Your task to perform on an android device: Open Chrome and go to settings Image 0: 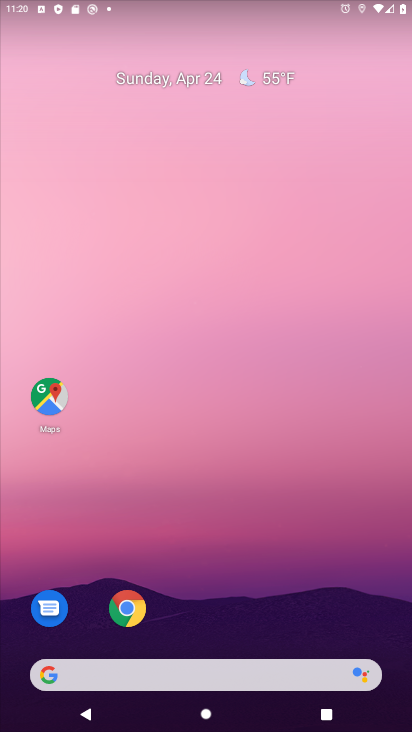
Step 0: click (124, 609)
Your task to perform on an android device: Open Chrome and go to settings Image 1: 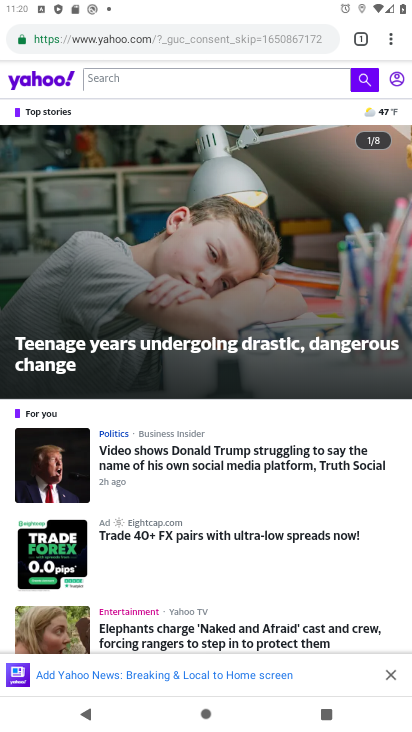
Step 1: click (124, 609)
Your task to perform on an android device: Open Chrome and go to settings Image 2: 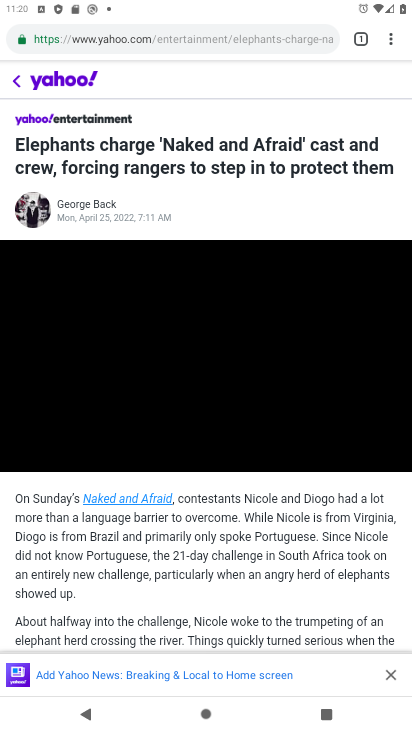
Step 2: click (393, 44)
Your task to perform on an android device: Open Chrome and go to settings Image 3: 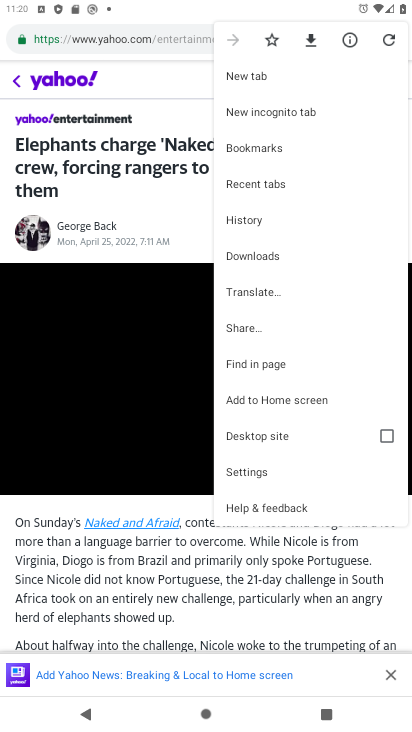
Step 3: click (266, 470)
Your task to perform on an android device: Open Chrome and go to settings Image 4: 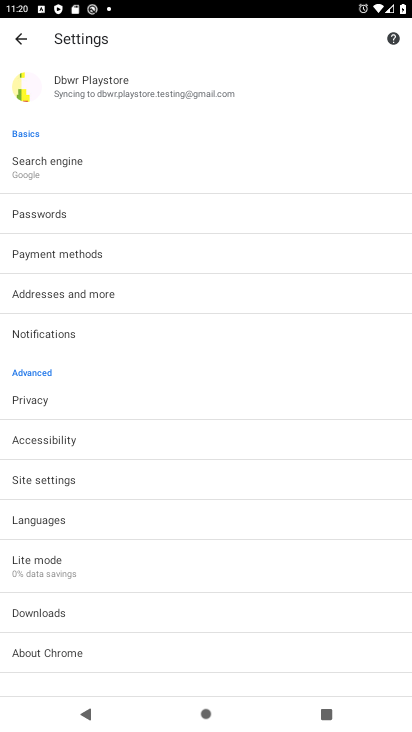
Step 4: task complete